Your task to perform on an android device: Open notification settings Image 0: 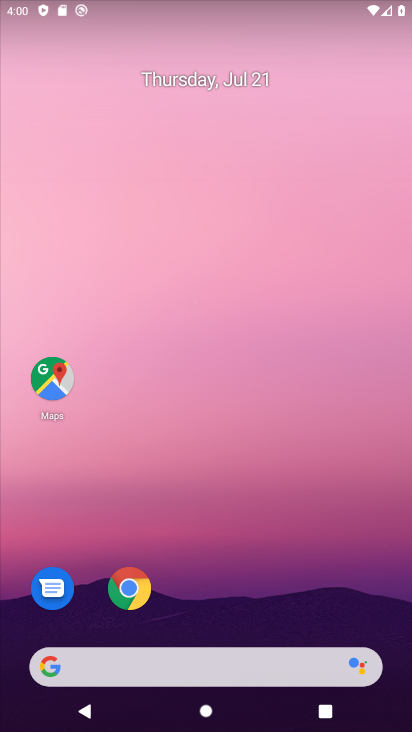
Step 0: press home button
Your task to perform on an android device: Open notification settings Image 1: 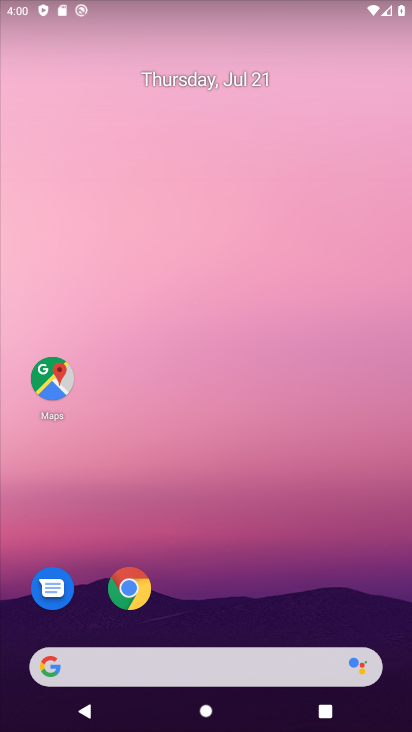
Step 1: drag from (284, 537) to (240, 0)
Your task to perform on an android device: Open notification settings Image 2: 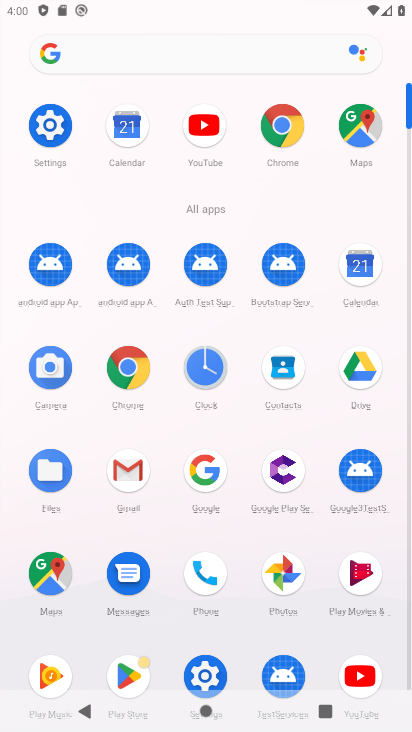
Step 2: click (35, 113)
Your task to perform on an android device: Open notification settings Image 3: 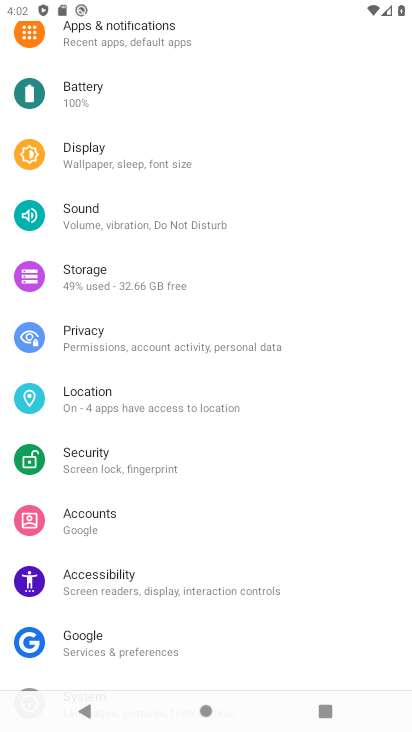
Step 3: click (51, 43)
Your task to perform on an android device: Open notification settings Image 4: 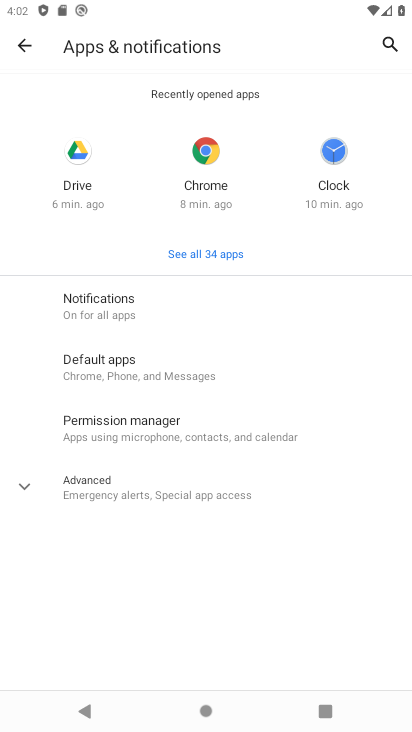
Step 4: click (85, 316)
Your task to perform on an android device: Open notification settings Image 5: 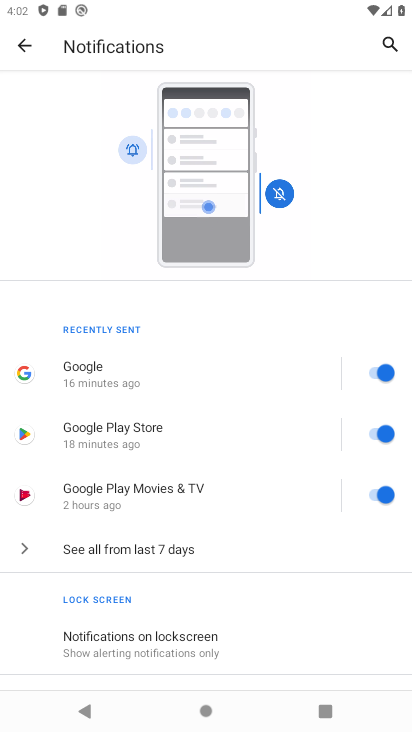
Step 5: task complete